Your task to perform on an android device: turn off sleep mode Image 0: 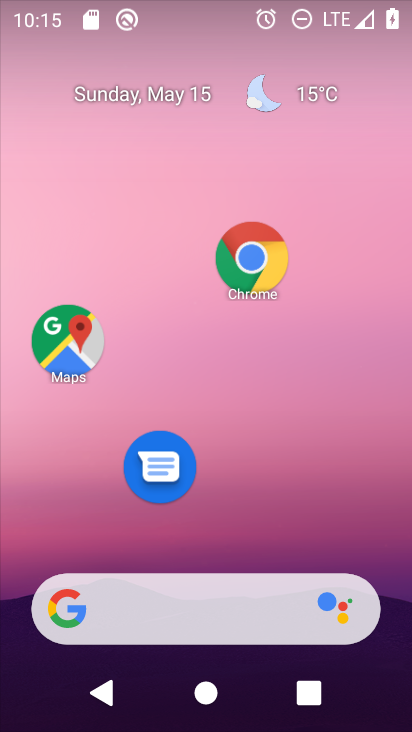
Step 0: drag from (196, 513) to (225, 25)
Your task to perform on an android device: turn off sleep mode Image 1: 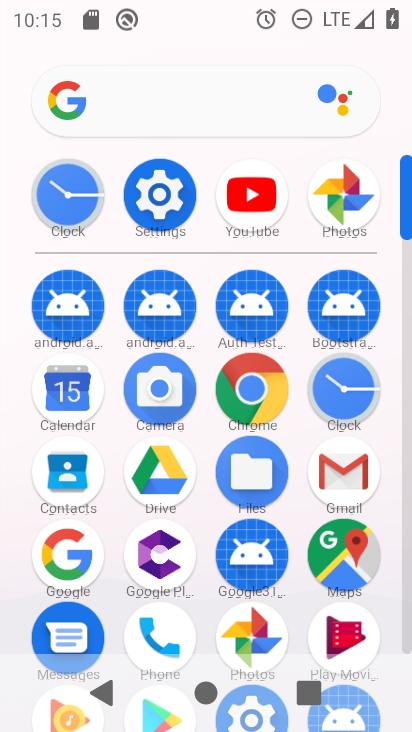
Step 1: click (175, 186)
Your task to perform on an android device: turn off sleep mode Image 2: 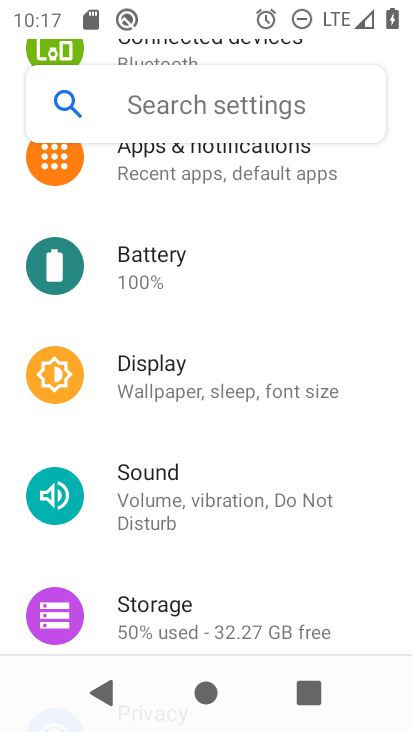
Step 2: task complete